Your task to perform on an android device: Empty the shopping cart on walmart.com. Image 0: 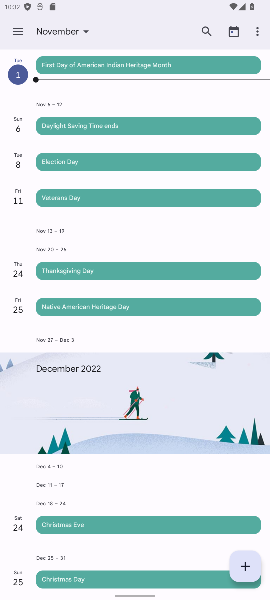
Step 0: press home button
Your task to perform on an android device: Empty the shopping cart on walmart.com. Image 1: 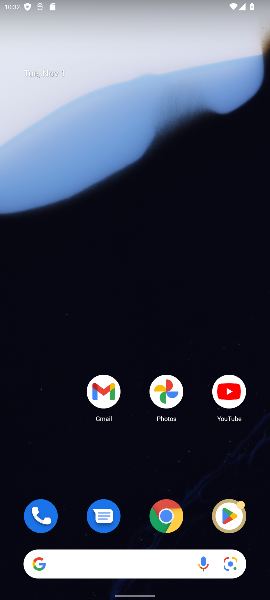
Step 1: click (168, 519)
Your task to perform on an android device: Empty the shopping cart on walmart.com. Image 2: 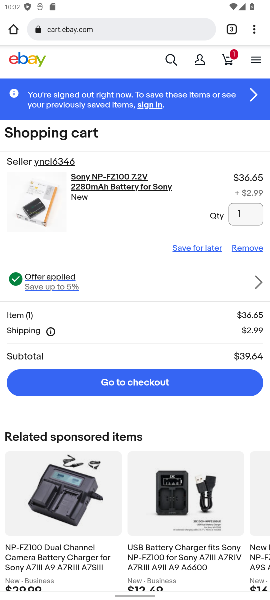
Step 2: click (227, 23)
Your task to perform on an android device: Empty the shopping cart on walmart.com. Image 3: 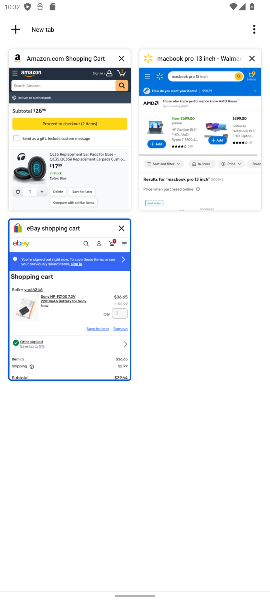
Step 3: click (186, 104)
Your task to perform on an android device: Empty the shopping cart on walmart.com. Image 4: 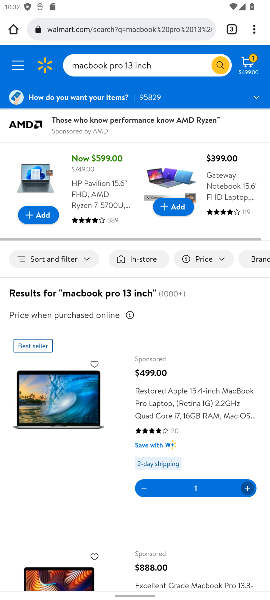
Step 4: click (251, 63)
Your task to perform on an android device: Empty the shopping cart on walmart.com. Image 5: 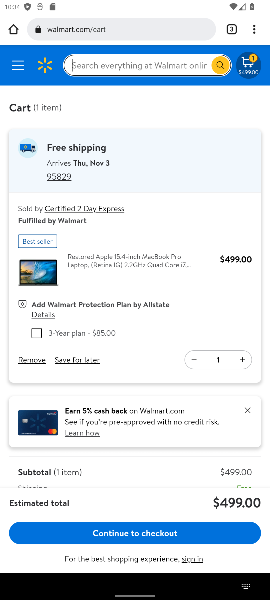
Step 5: click (22, 359)
Your task to perform on an android device: Empty the shopping cart on walmart.com. Image 6: 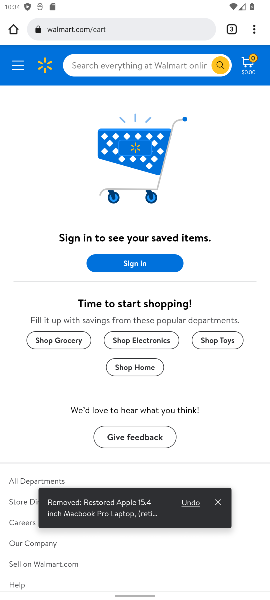
Step 6: task complete